Your task to perform on an android device: turn off improve location accuracy Image 0: 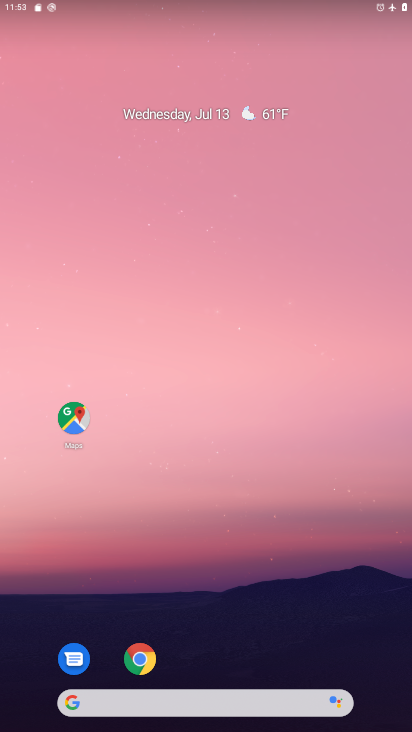
Step 0: drag from (213, 660) to (240, 126)
Your task to perform on an android device: turn off improve location accuracy Image 1: 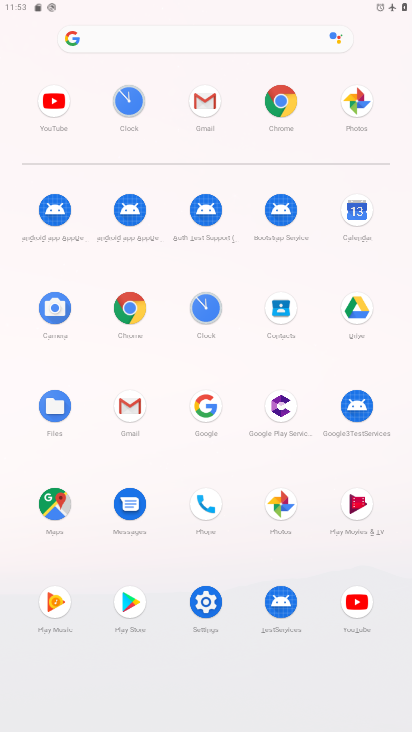
Step 1: click (203, 594)
Your task to perform on an android device: turn off improve location accuracy Image 2: 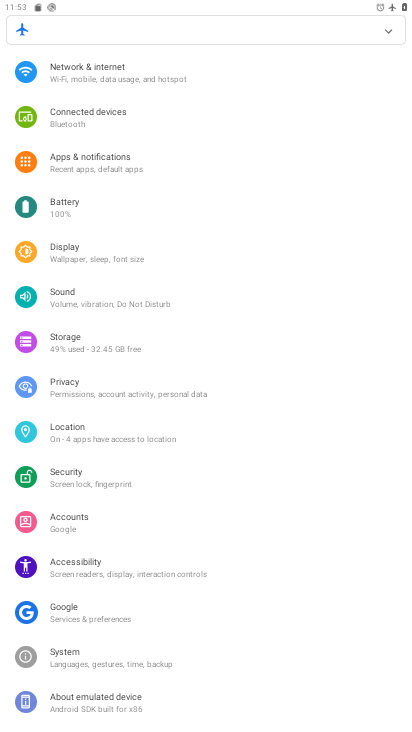
Step 2: click (98, 426)
Your task to perform on an android device: turn off improve location accuracy Image 3: 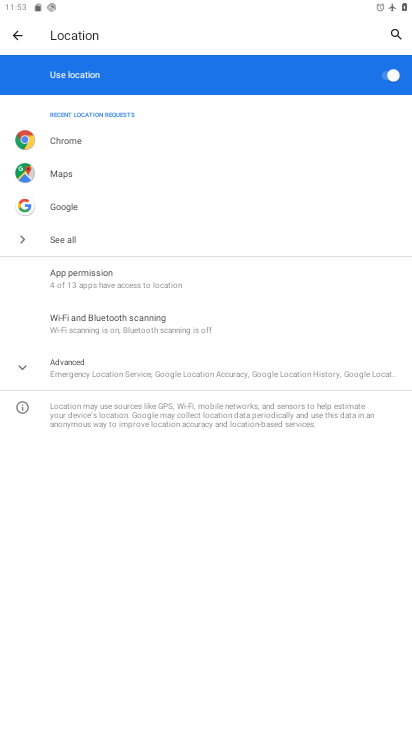
Step 3: click (22, 362)
Your task to perform on an android device: turn off improve location accuracy Image 4: 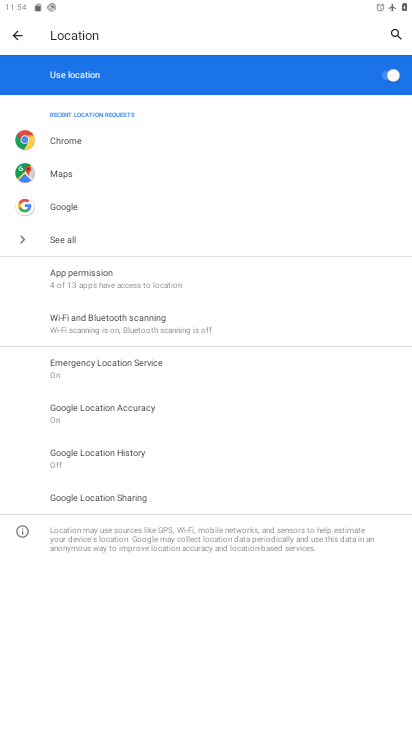
Step 4: click (107, 409)
Your task to perform on an android device: turn off improve location accuracy Image 5: 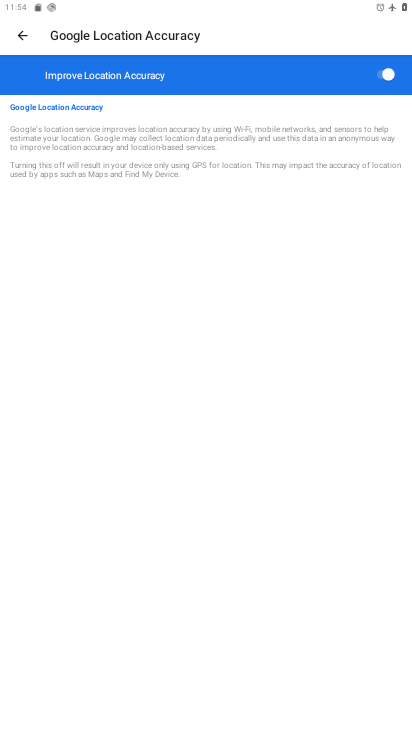
Step 5: click (386, 74)
Your task to perform on an android device: turn off improve location accuracy Image 6: 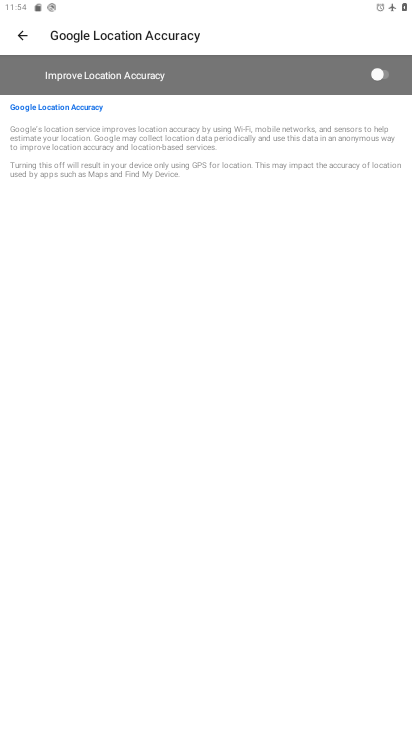
Step 6: task complete